Your task to perform on an android device: Show me popular games on the Play Store Image 0: 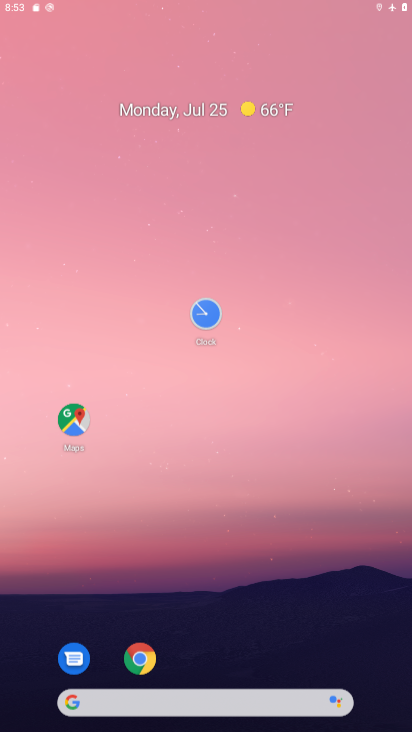
Step 0: drag from (252, 364) to (238, 263)
Your task to perform on an android device: Show me popular games on the Play Store Image 1: 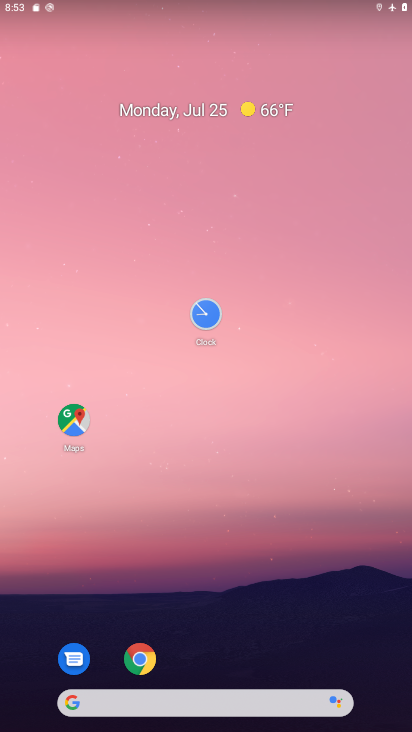
Step 1: drag from (257, 520) to (230, 343)
Your task to perform on an android device: Show me popular games on the Play Store Image 2: 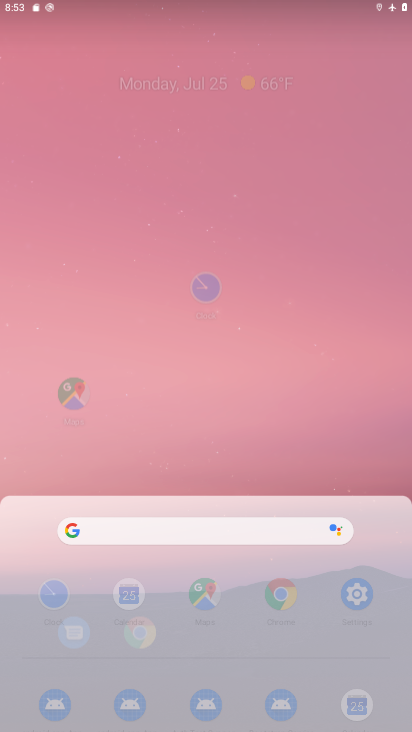
Step 2: drag from (230, 683) to (219, 161)
Your task to perform on an android device: Show me popular games on the Play Store Image 3: 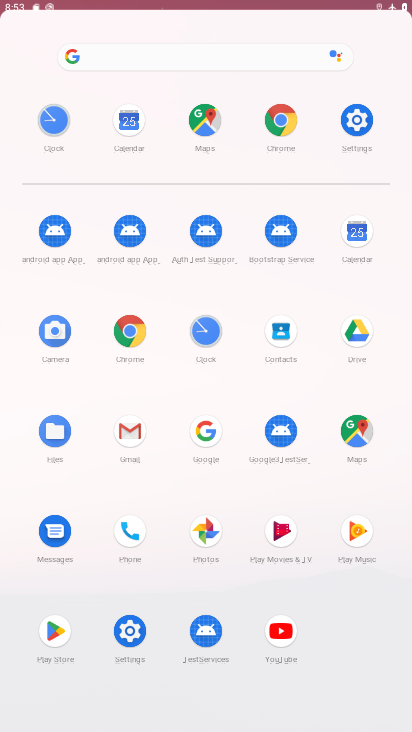
Step 3: drag from (223, 520) to (222, 98)
Your task to perform on an android device: Show me popular games on the Play Store Image 4: 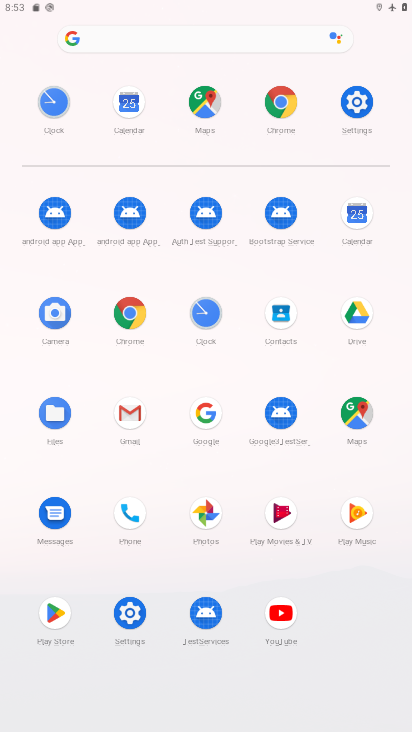
Step 4: click (52, 613)
Your task to perform on an android device: Show me popular games on the Play Store Image 5: 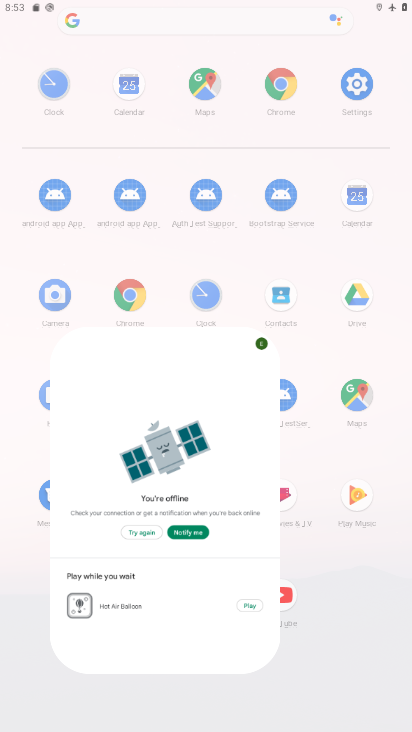
Step 5: click (53, 609)
Your task to perform on an android device: Show me popular games on the Play Store Image 6: 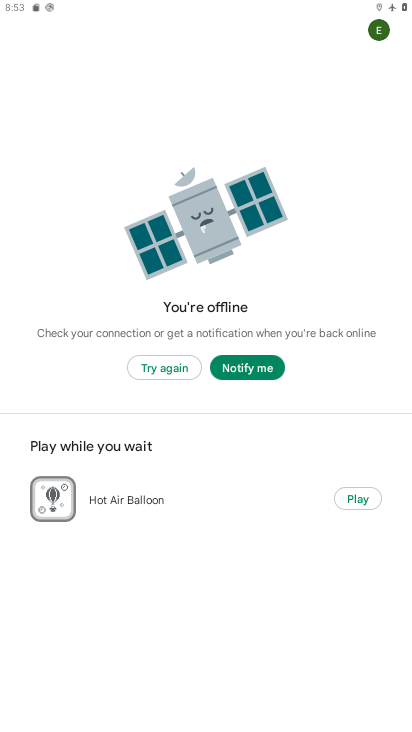
Step 6: click (53, 608)
Your task to perform on an android device: Show me popular games on the Play Store Image 7: 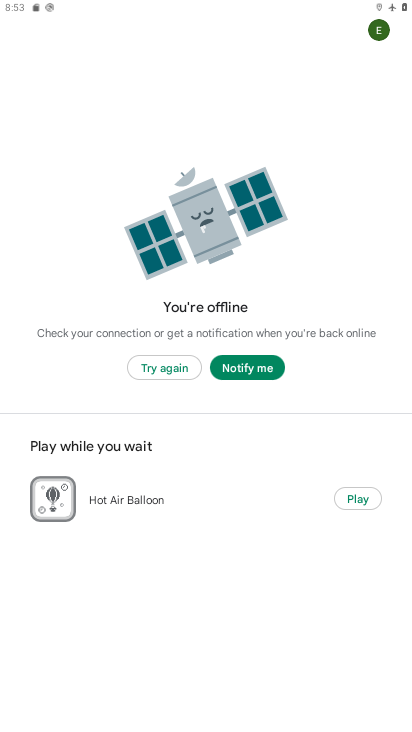
Step 7: press back button
Your task to perform on an android device: Show me popular games on the Play Store Image 8: 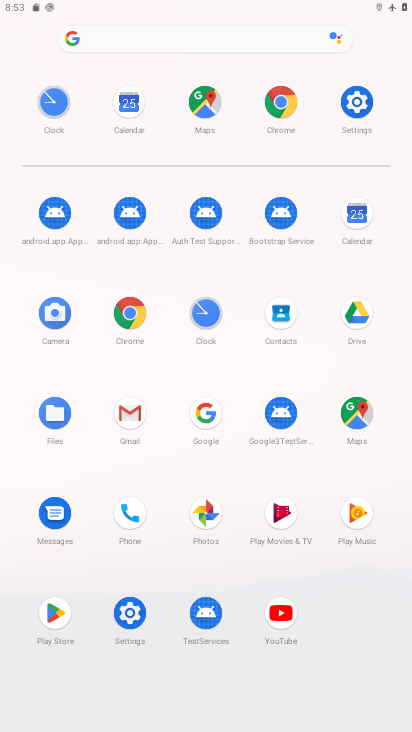
Step 8: click (53, 613)
Your task to perform on an android device: Show me popular games on the Play Store Image 9: 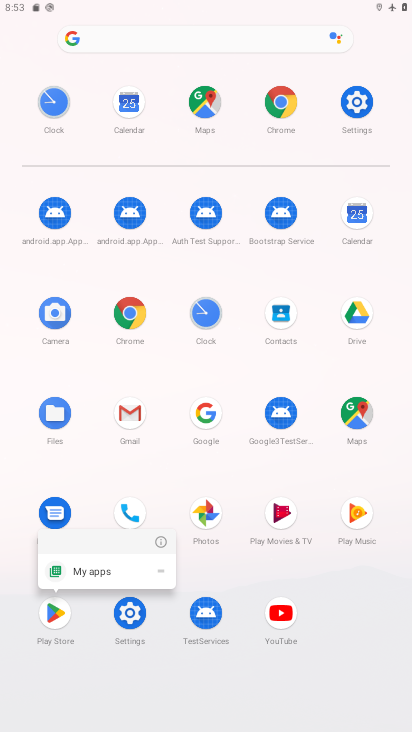
Step 9: click (54, 606)
Your task to perform on an android device: Show me popular games on the Play Store Image 10: 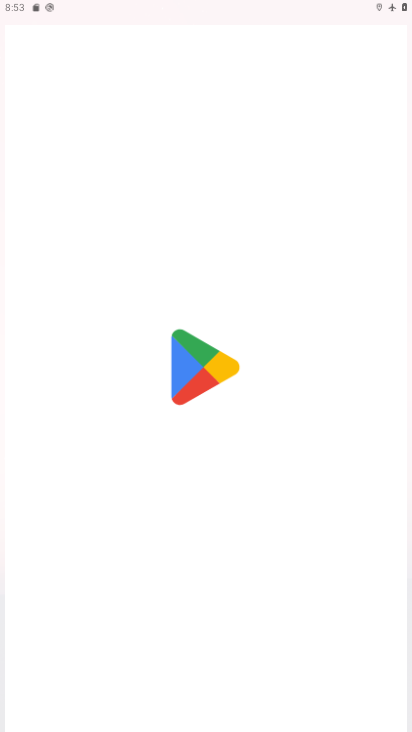
Step 10: click (58, 615)
Your task to perform on an android device: Show me popular games on the Play Store Image 11: 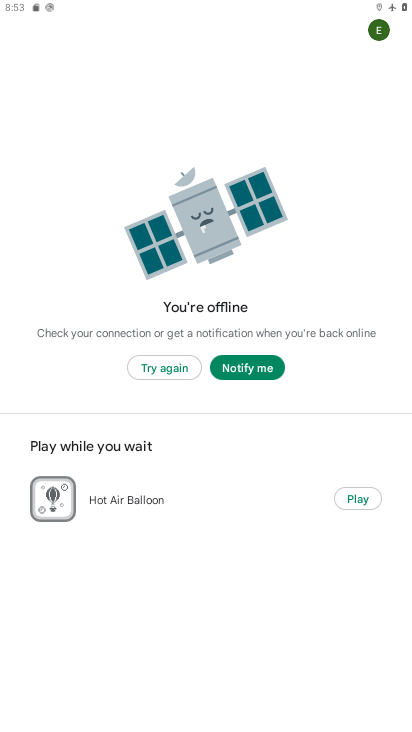
Step 11: task complete